Your task to perform on an android device: Open accessibility settings Image 0: 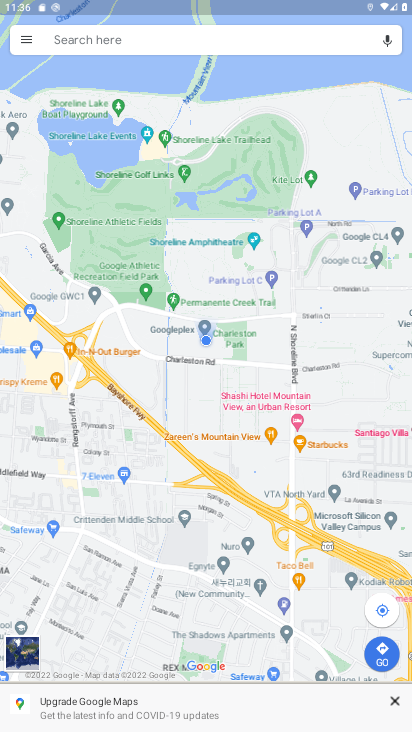
Step 0: press home button
Your task to perform on an android device: Open accessibility settings Image 1: 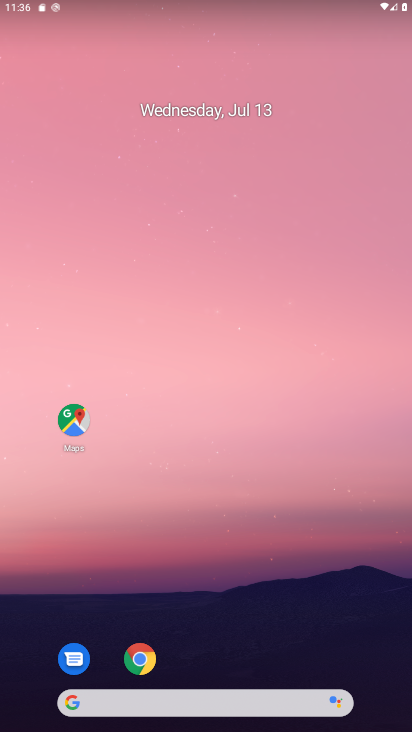
Step 1: drag from (229, 654) to (400, 5)
Your task to perform on an android device: Open accessibility settings Image 2: 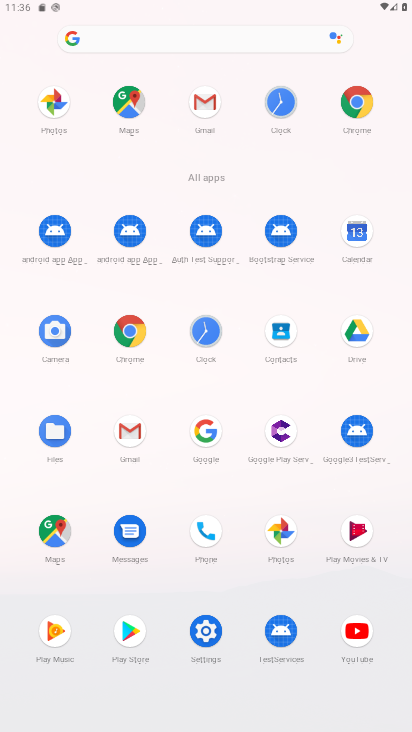
Step 2: click (207, 637)
Your task to perform on an android device: Open accessibility settings Image 3: 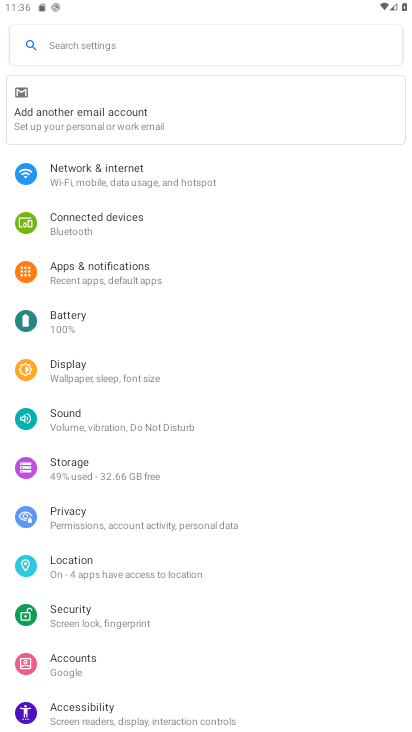
Step 3: click (64, 708)
Your task to perform on an android device: Open accessibility settings Image 4: 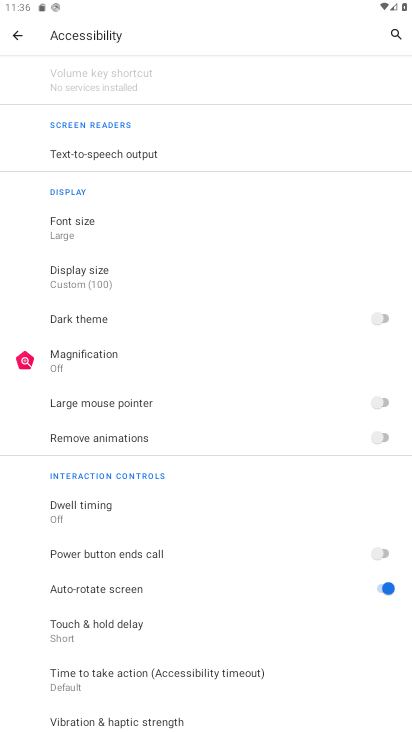
Step 4: task complete